Your task to perform on an android device: turn off notifications in google photos Image 0: 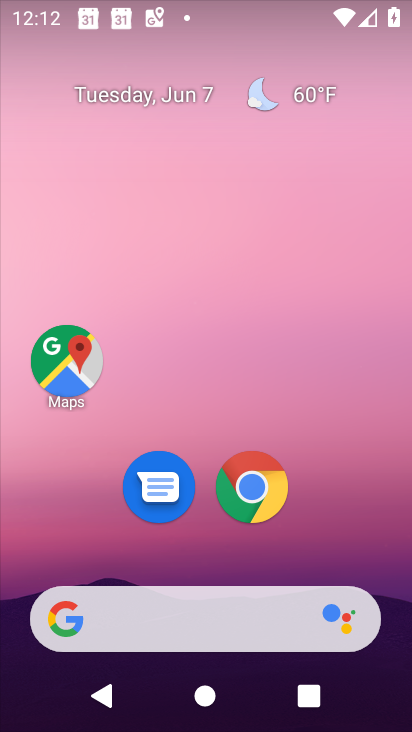
Step 0: drag from (368, 537) to (315, 190)
Your task to perform on an android device: turn off notifications in google photos Image 1: 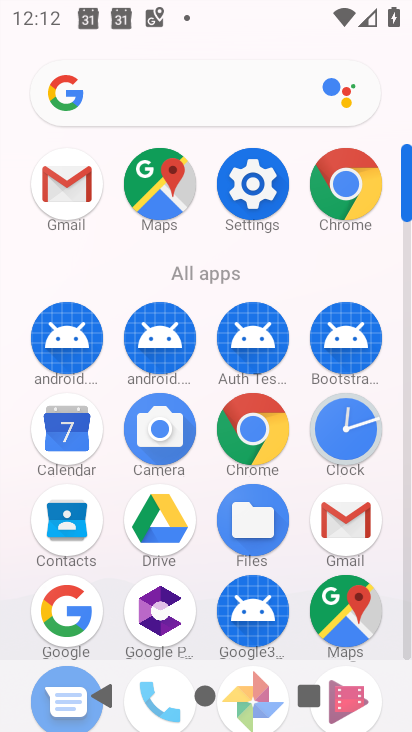
Step 1: click (405, 642)
Your task to perform on an android device: turn off notifications in google photos Image 2: 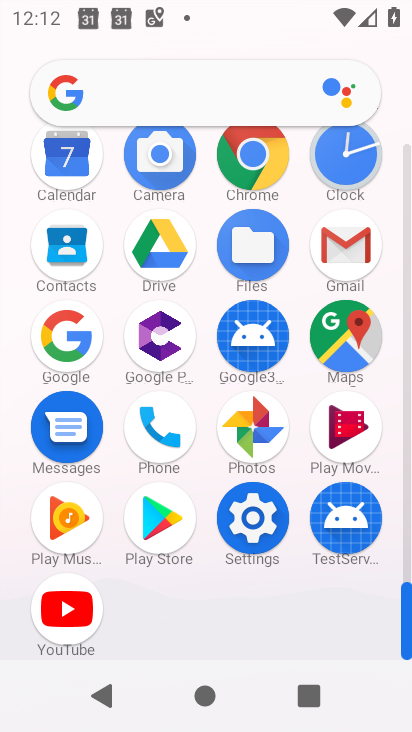
Step 2: click (272, 418)
Your task to perform on an android device: turn off notifications in google photos Image 3: 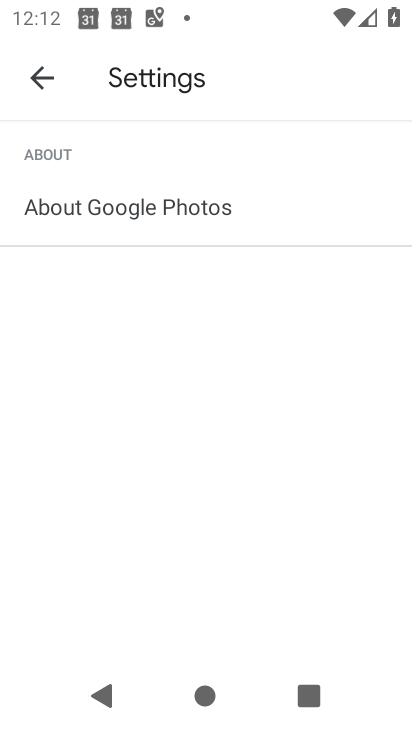
Step 3: click (44, 85)
Your task to perform on an android device: turn off notifications in google photos Image 4: 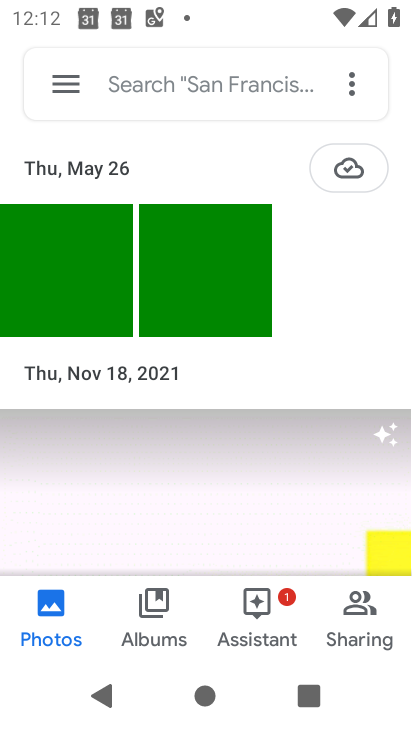
Step 4: click (55, 90)
Your task to perform on an android device: turn off notifications in google photos Image 5: 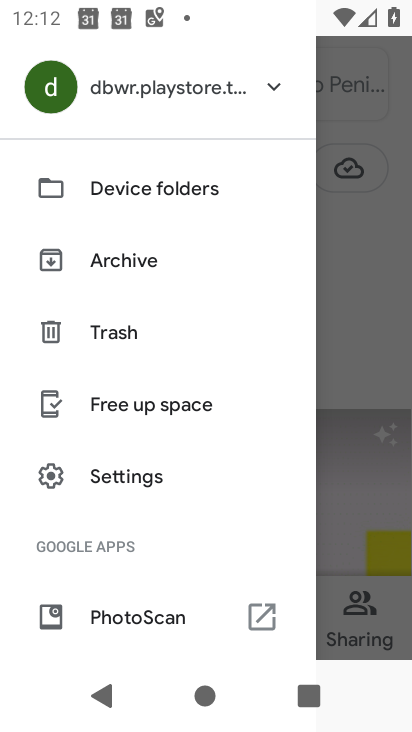
Step 5: click (194, 476)
Your task to perform on an android device: turn off notifications in google photos Image 6: 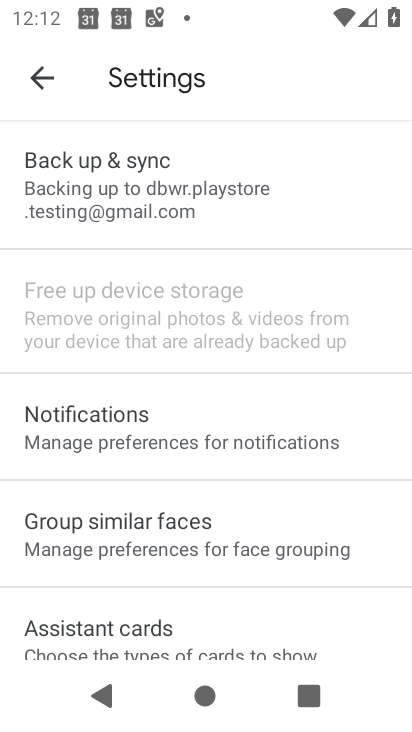
Step 6: click (201, 447)
Your task to perform on an android device: turn off notifications in google photos Image 7: 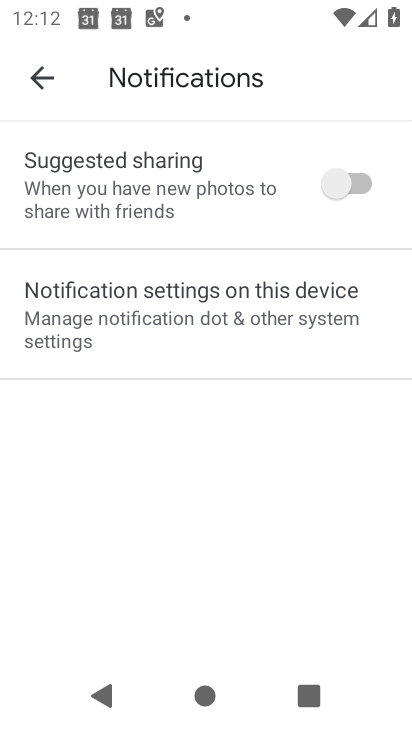
Step 7: click (240, 358)
Your task to perform on an android device: turn off notifications in google photos Image 8: 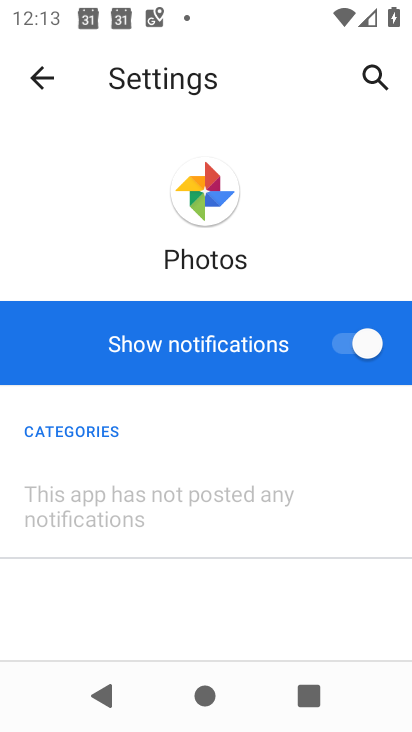
Step 8: click (351, 350)
Your task to perform on an android device: turn off notifications in google photos Image 9: 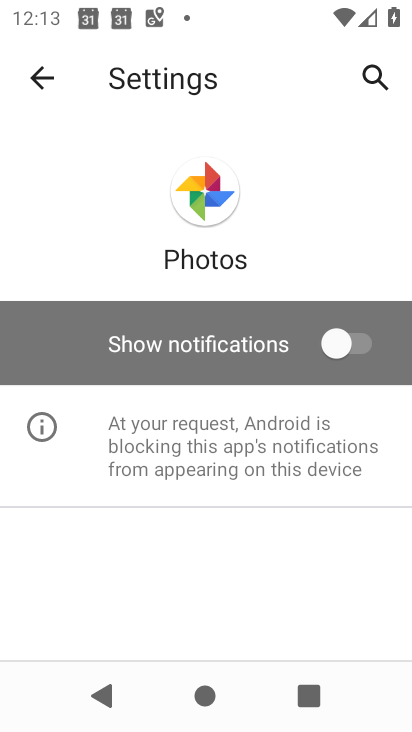
Step 9: task complete